Your task to perform on an android device: toggle airplane mode Image 0: 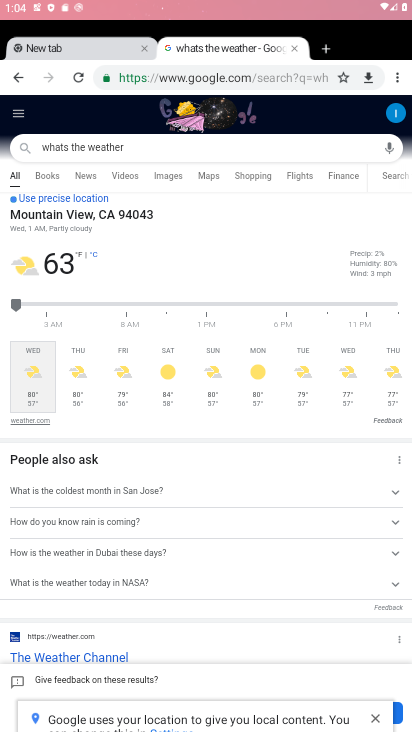
Step 0: press home button
Your task to perform on an android device: toggle airplane mode Image 1: 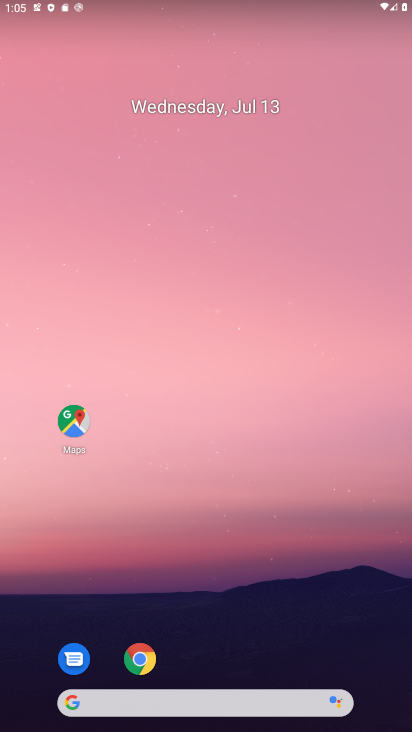
Step 1: drag from (217, 643) to (231, 108)
Your task to perform on an android device: toggle airplane mode Image 2: 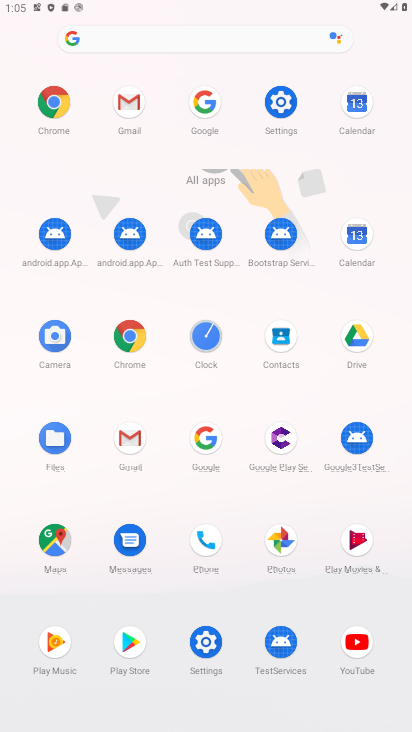
Step 2: click (279, 97)
Your task to perform on an android device: toggle airplane mode Image 3: 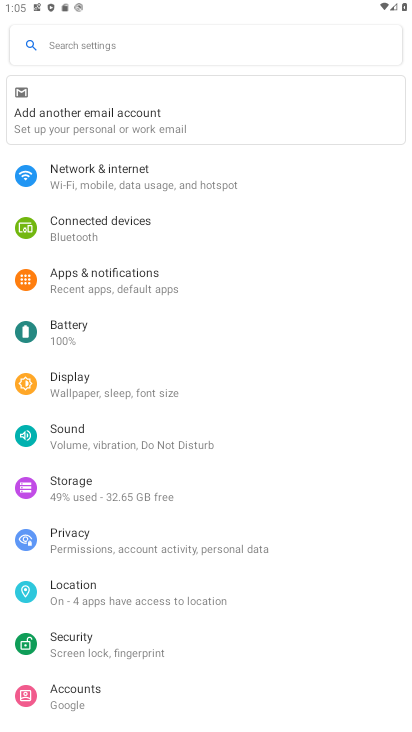
Step 3: click (129, 171)
Your task to perform on an android device: toggle airplane mode Image 4: 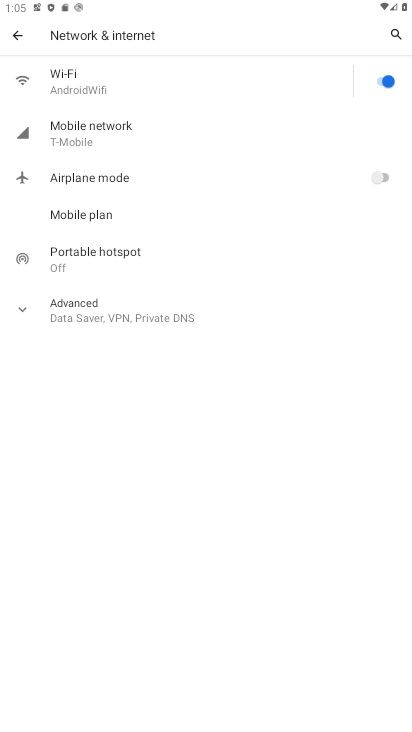
Step 4: click (381, 165)
Your task to perform on an android device: toggle airplane mode Image 5: 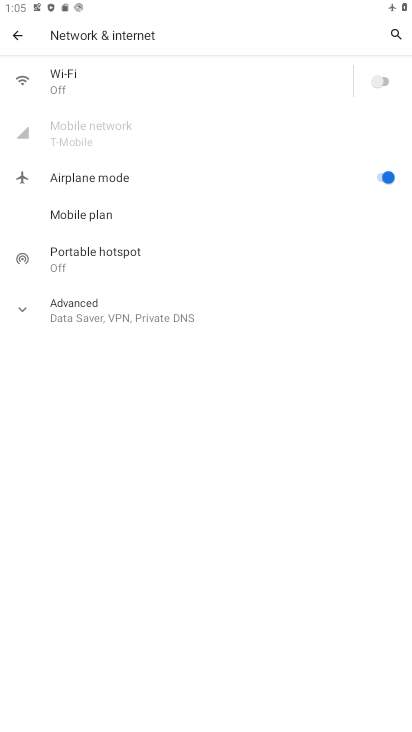
Step 5: task complete